Your task to perform on an android device: move an email to a new category in the gmail app Image 0: 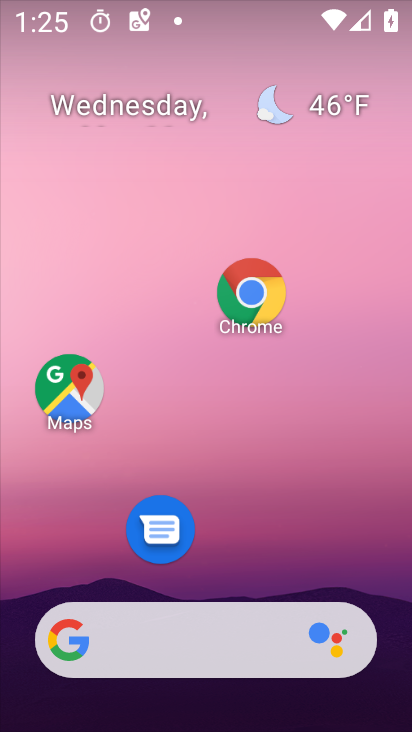
Step 0: drag from (244, 527) to (262, 176)
Your task to perform on an android device: move an email to a new category in the gmail app Image 1: 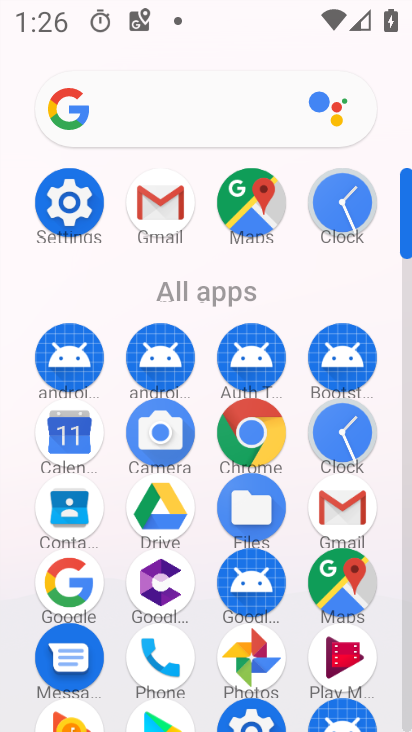
Step 1: click (348, 499)
Your task to perform on an android device: move an email to a new category in the gmail app Image 2: 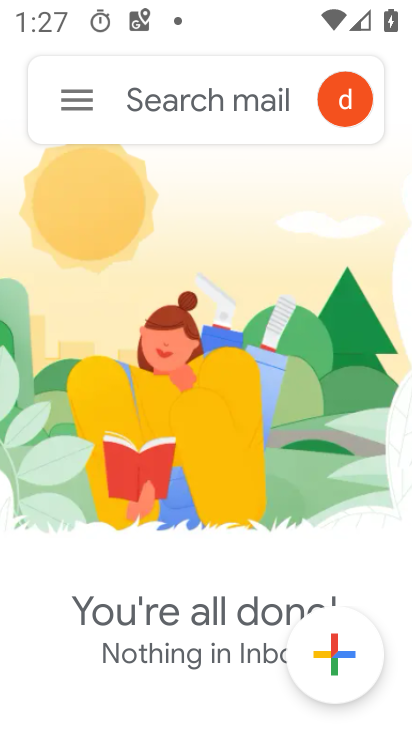
Step 2: task complete